Your task to perform on an android device: Open Chrome and go to the settings page Image 0: 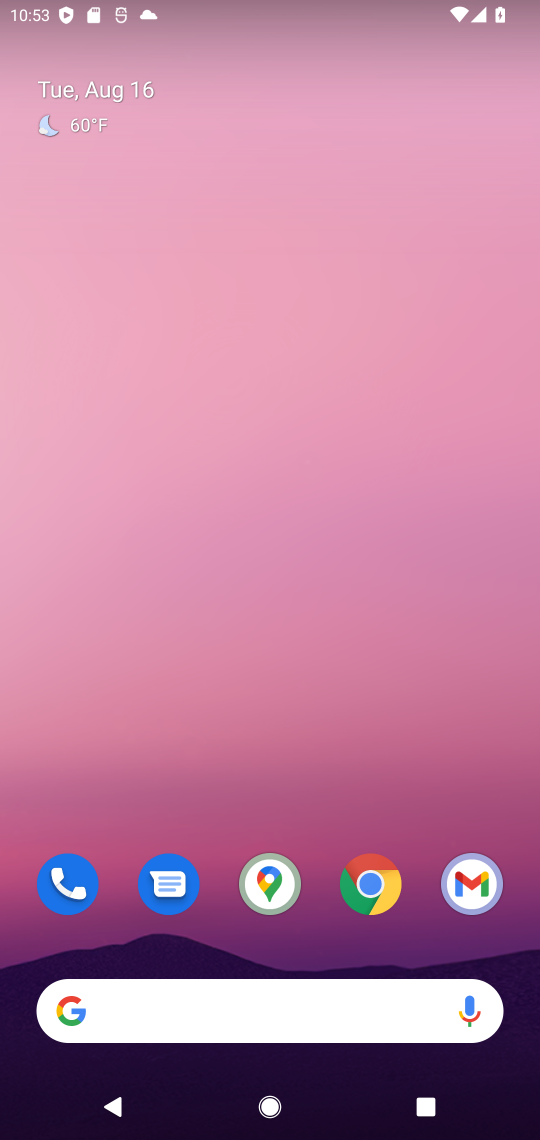
Step 0: click (362, 891)
Your task to perform on an android device: Open Chrome and go to the settings page Image 1: 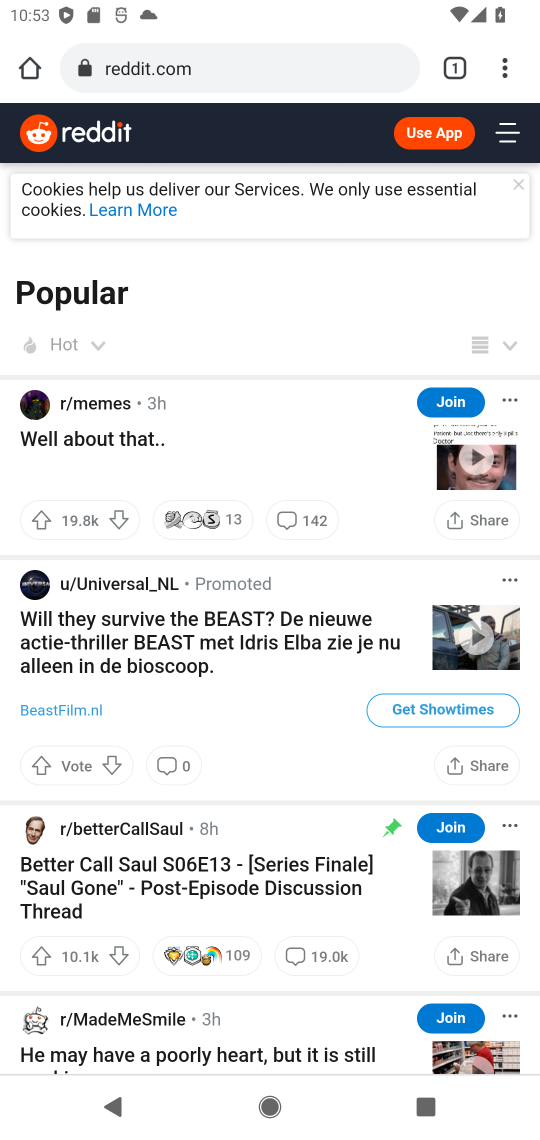
Step 1: click (502, 76)
Your task to perform on an android device: Open Chrome and go to the settings page Image 2: 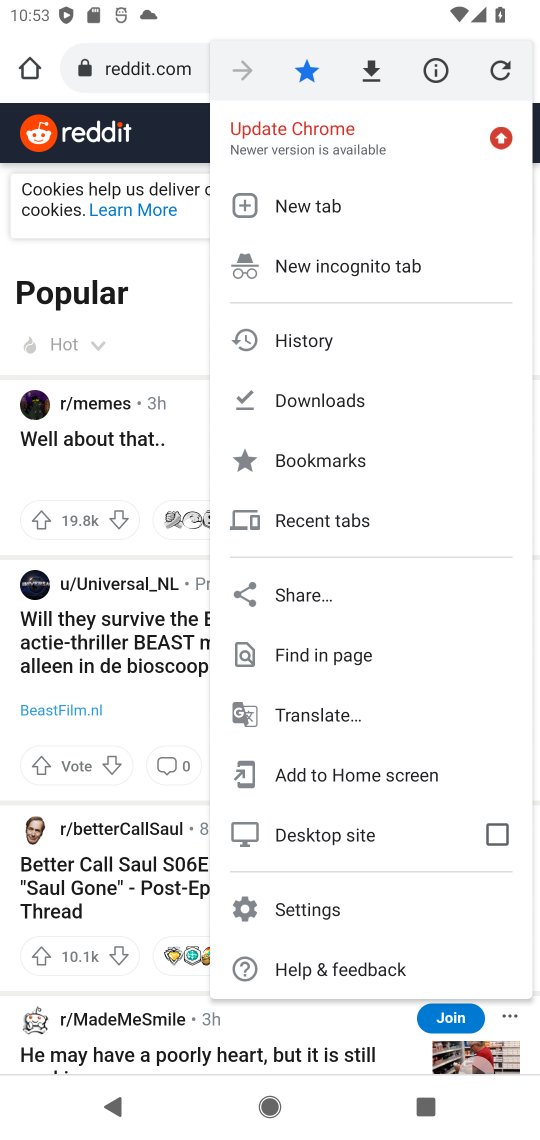
Step 2: click (305, 908)
Your task to perform on an android device: Open Chrome and go to the settings page Image 3: 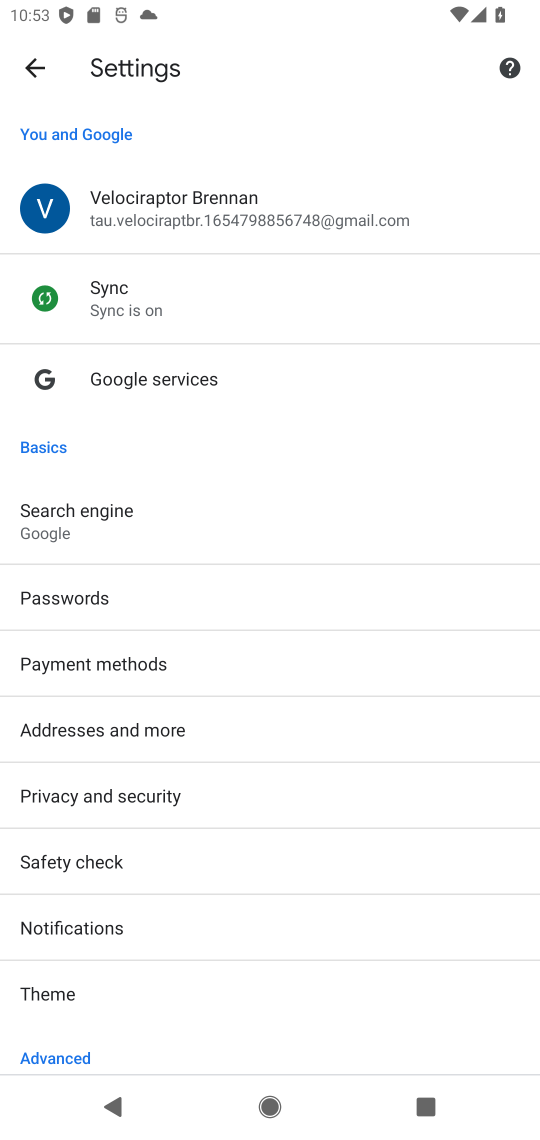
Step 3: task complete